Your task to perform on an android device: see sites visited before in the chrome app Image 0: 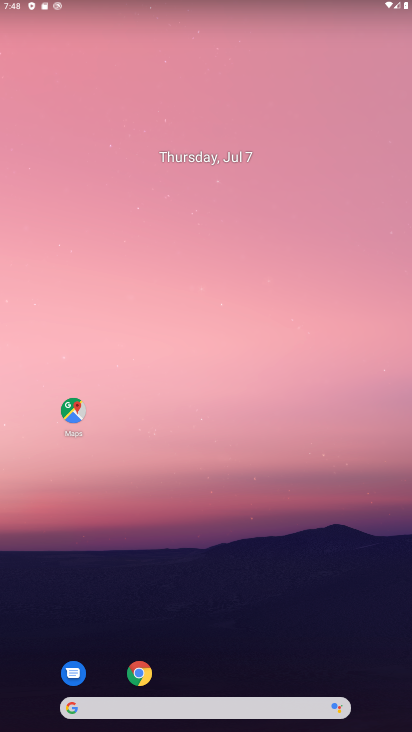
Step 0: drag from (204, 426) to (230, 161)
Your task to perform on an android device: see sites visited before in the chrome app Image 1: 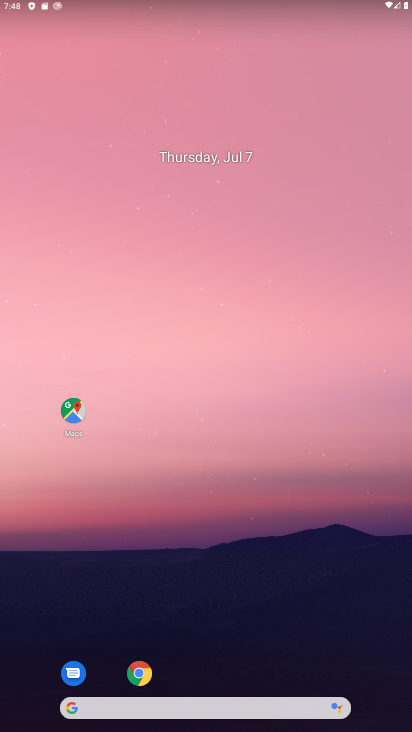
Step 1: drag from (181, 569) to (251, 33)
Your task to perform on an android device: see sites visited before in the chrome app Image 2: 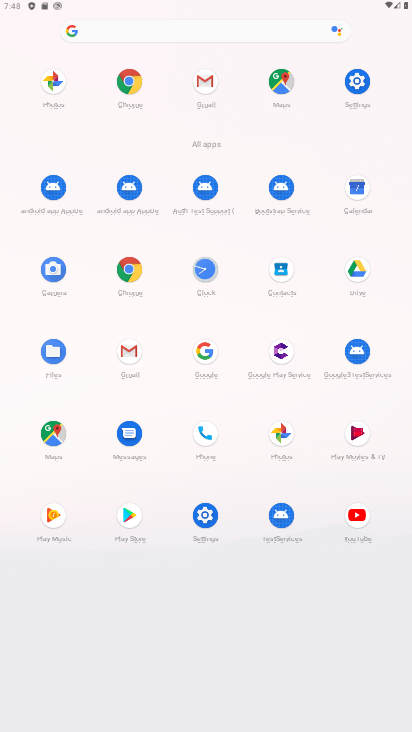
Step 2: click (130, 80)
Your task to perform on an android device: see sites visited before in the chrome app Image 3: 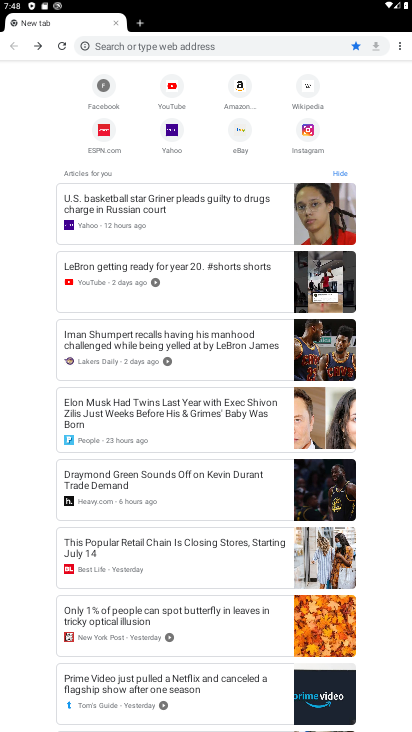
Step 3: click (400, 47)
Your task to perform on an android device: see sites visited before in the chrome app Image 4: 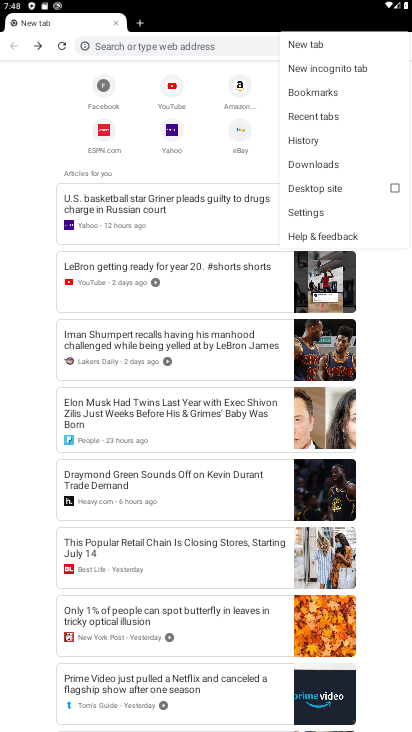
Step 4: click (334, 140)
Your task to perform on an android device: see sites visited before in the chrome app Image 5: 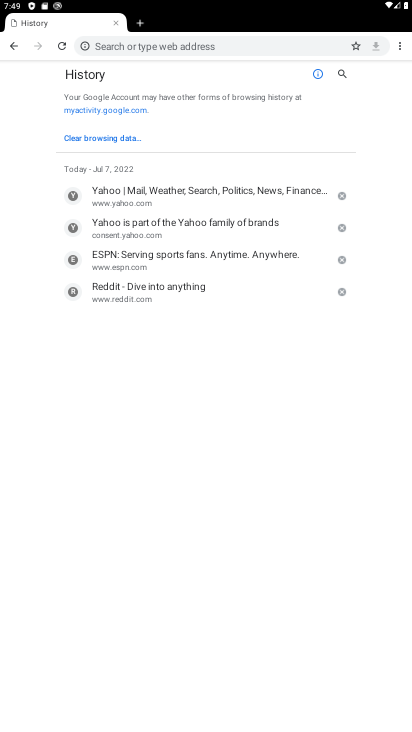
Step 5: task complete